Your task to perform on an android device: Toggle the flashlight Image 0: 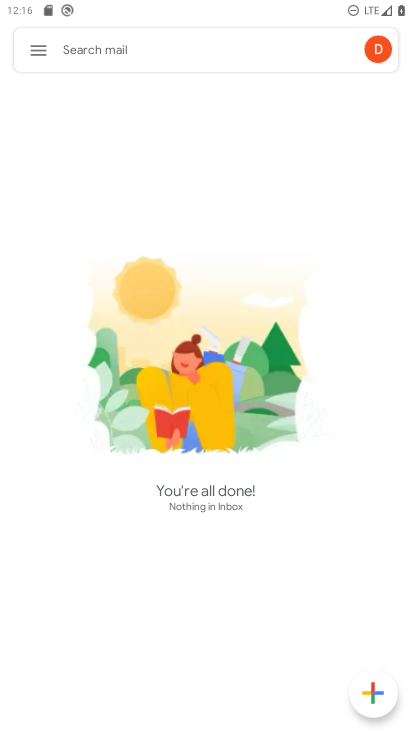
Step 0: press home button
Your task to perform on an android device: Toggle the flashlight Image 1: 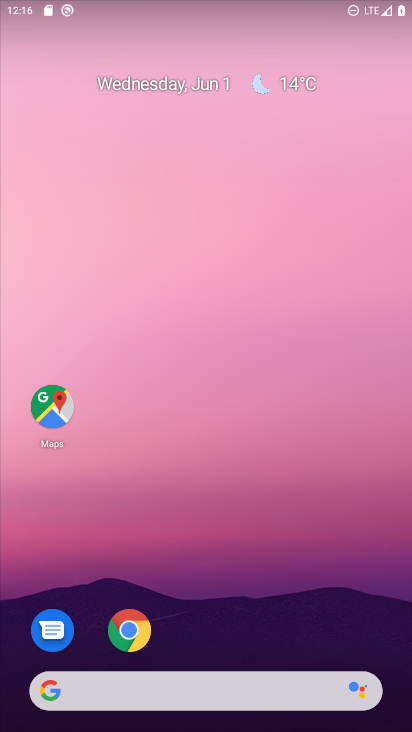
Step 1: drag from (275, 578) to (273, 36)
Your task to perform on an android device: Toggle the flashlight Image 2: 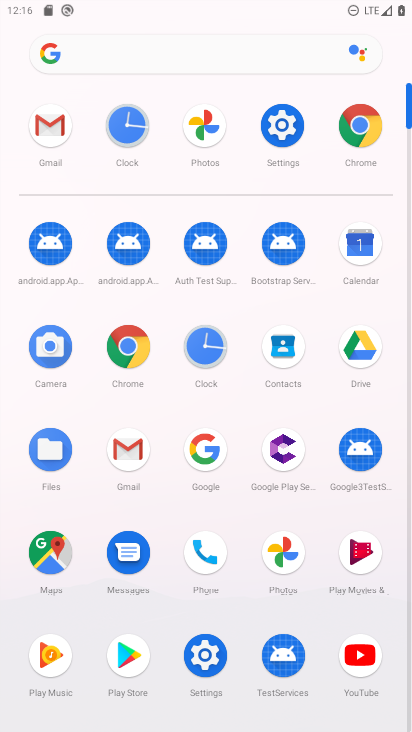
Step 2: click (294, 128)
Your task to perform on an android device: Toggle the flashlight Image 3: 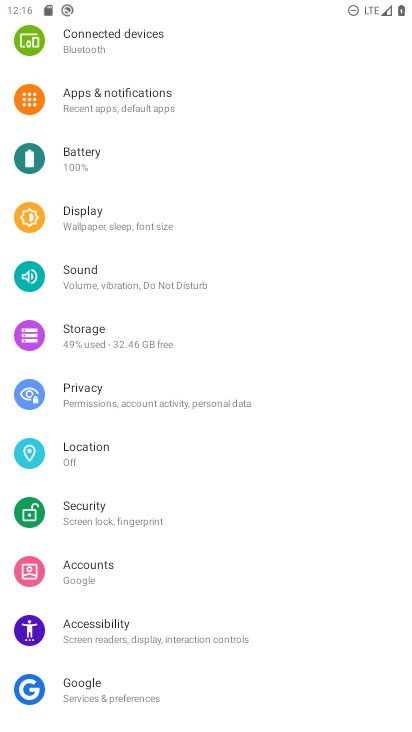
Step 3: click (143, 223)
Your task to perform on an android device: Toggle the flashlight Image 4: 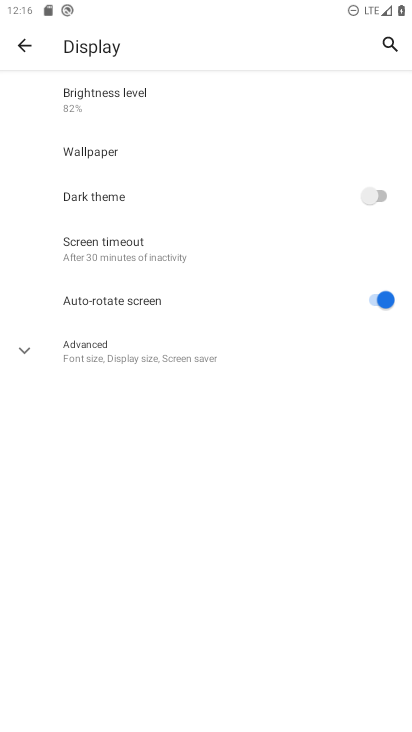
Step 4: task complete